Your task to perform on an android device: Open the calendar app, open the side menu, and click the "Day" option Image 0: 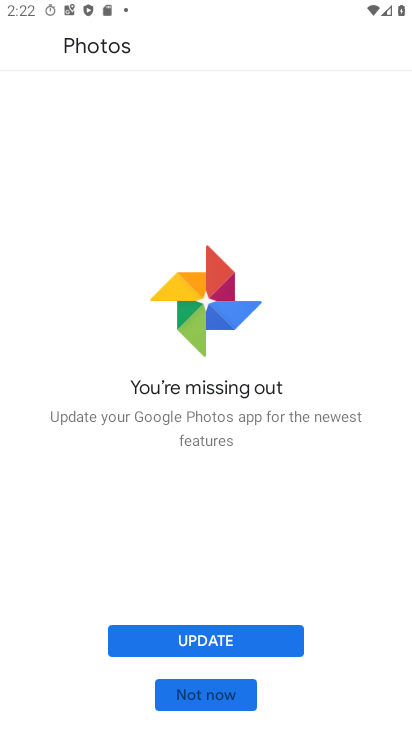
Step 0: press home button
Your task to perform on an android device: Open the calendar app, open the side menu, and click the "Day" option Image 1: 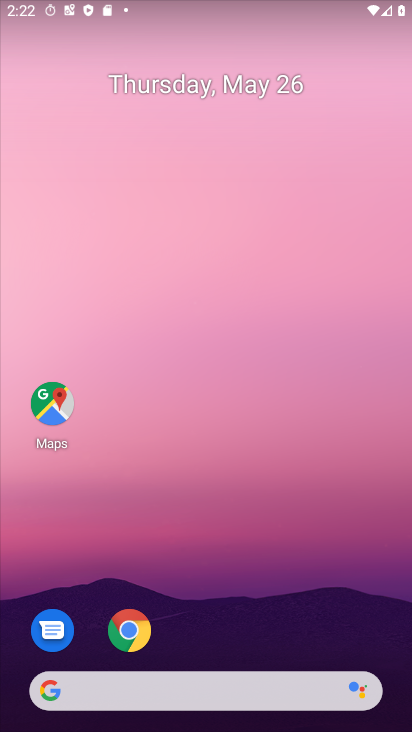
Step 1: drag from (257, 502) to (231, 280)
Your task to perform on an android device: Open the calendar app, open the side menu, and click the "Day" option Image 2: 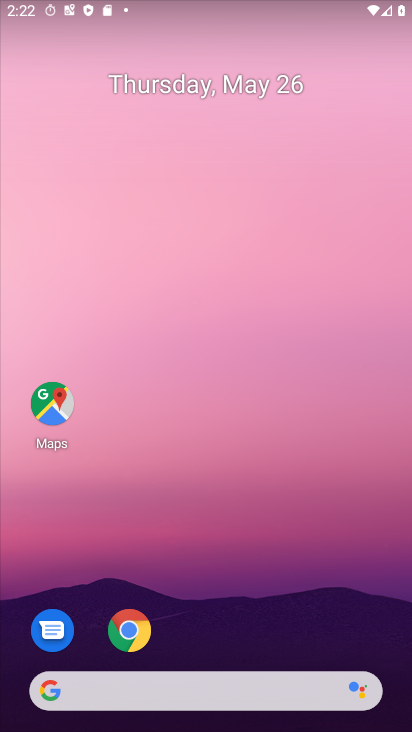
Step 2: drag from (235, 636) to (231, 332)
Your task to perform on an android device: Open the calendar app, open the side menu, and click the "Day" option Image 3: 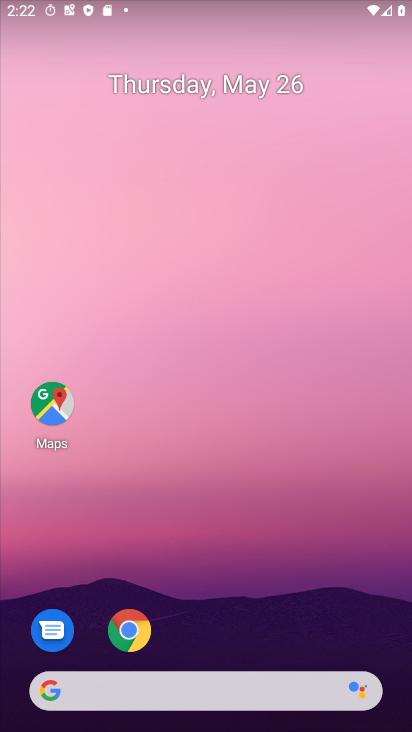
Step 3: drag from (237, 621) to (243, 187)
Your task to perform on an android device: Open the calendar app, open the side menu, and click the "Day" option Image 4: 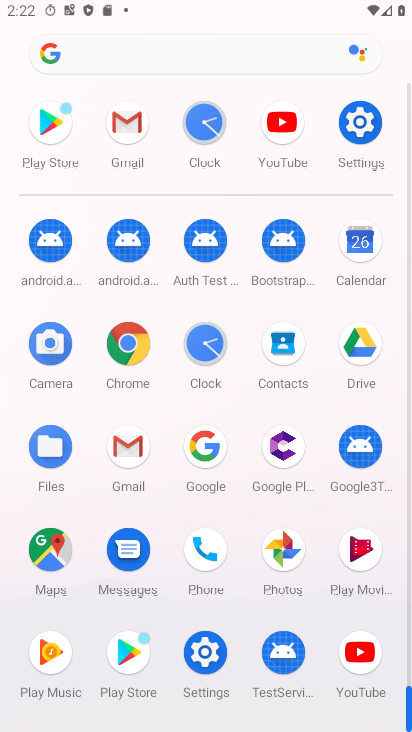
Step 4: click (347, 241)
Your task to perform on an android device: Open the calendar app, open the side menu, and click the "Day" option Image 5: 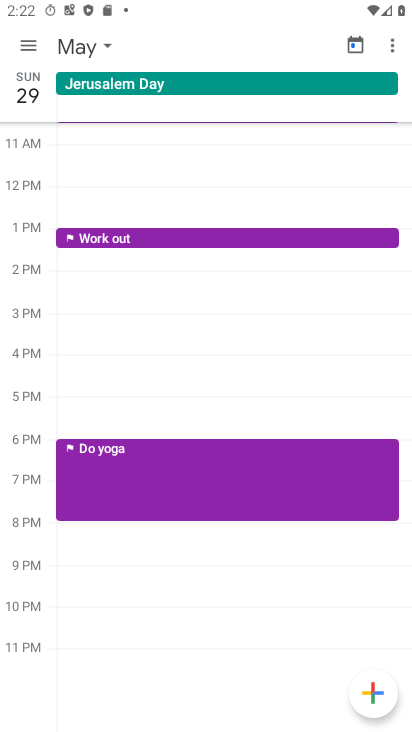
Step 5: click (31, 57)
Your task to perform on an android device: Open the calendar app, open the side menu, and click the "Day" option Image 6: 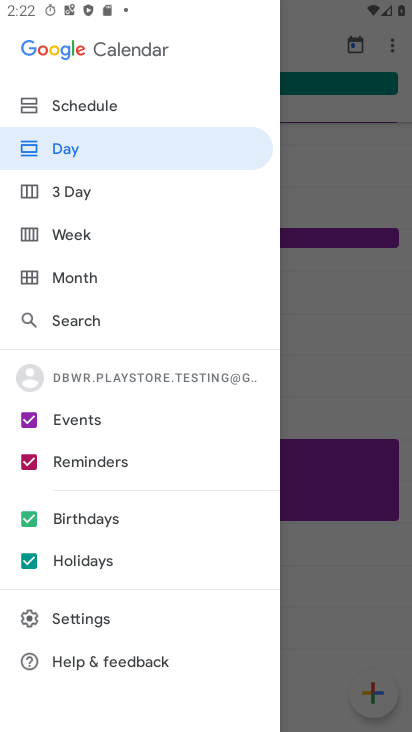
Step 6: click (50, 136)
Your task to perform on an android device: Open the calendar app, open the side menu, and click the "Day" option Image 7: 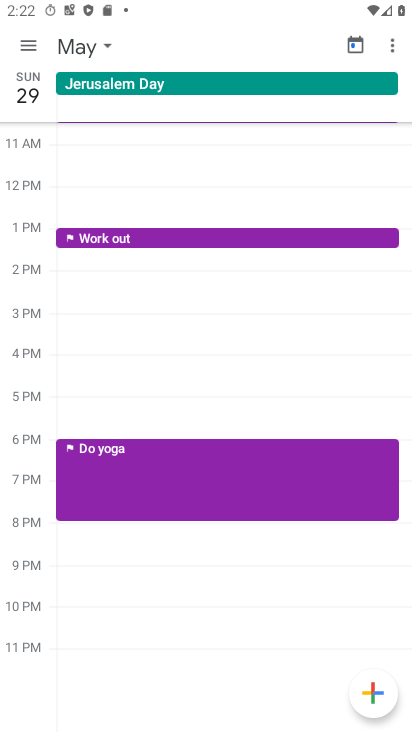
Step 7: task complete